Your task to perform on an android device: Open the calendar app, open the side menu, and click the "Day" option Image 0: 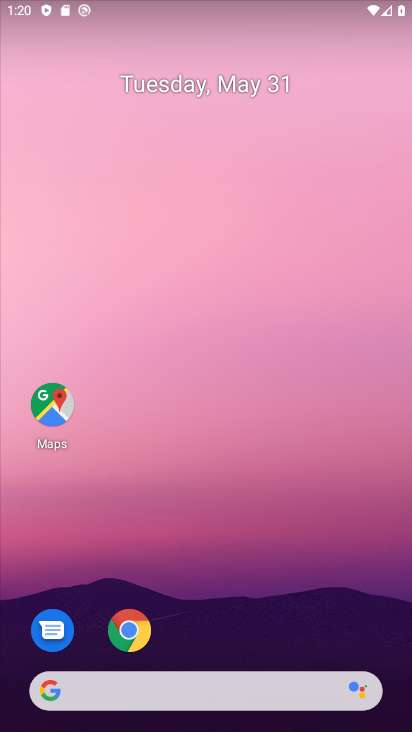
Step 0: drag from (269, 500) to (201, 65)
Your task to perform on an android device: Open the calendar app, open the side menu, and click the "Day" option Image 1: 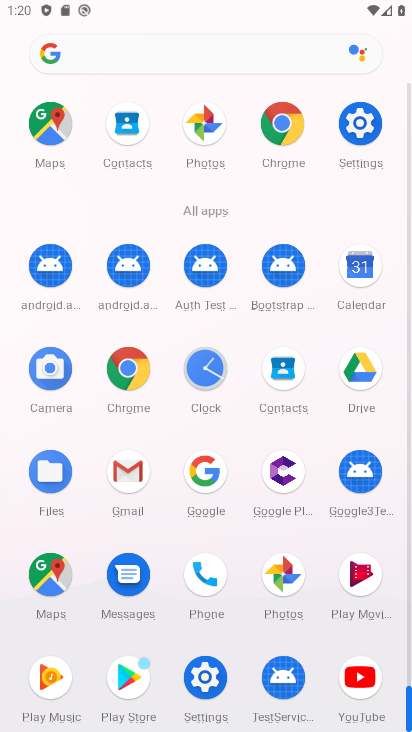
Step 1: drag from (10, 565) to (17, 277)
Your task to perform on an android device: Open the calendar app, open the side menu, and click the "Day" option Image 2: 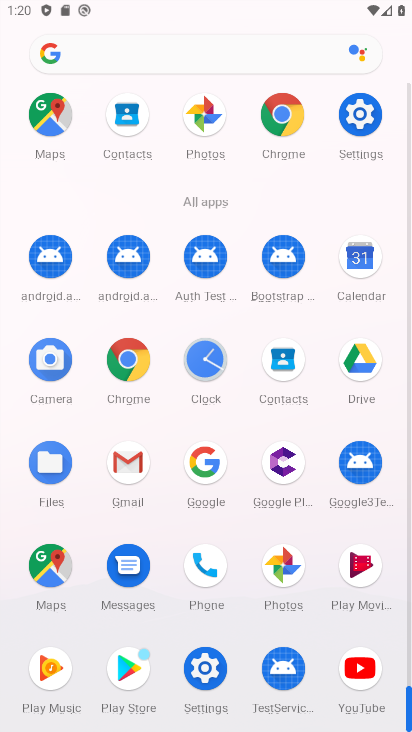
Step 2: click (359, 254)
Your task to perform on an android device: Open the calendar app, open the side menu, and click the "Day" option Image 3: 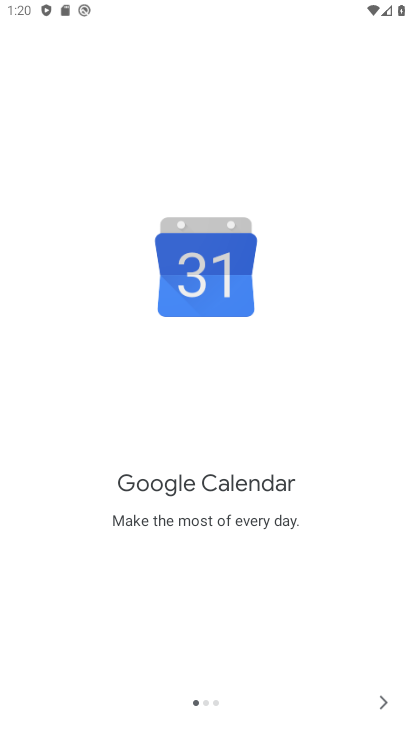
Step 3: click (383, 701)
Your task to perform on an android device: Open the calendar app, open the side menu, and click the "Day" option Image 4: 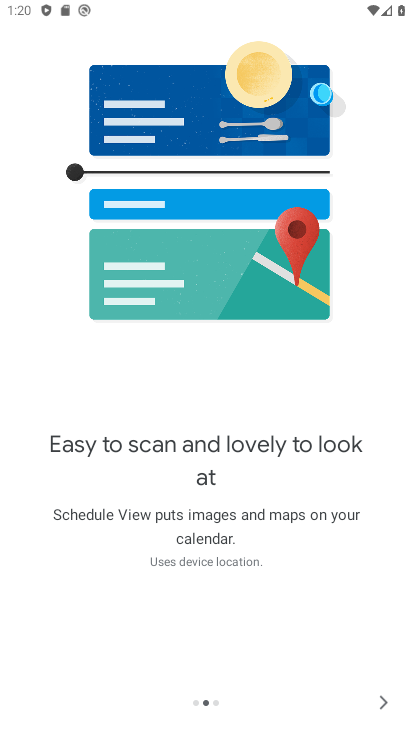
Step 4: click (384, 700)
Your task to perform on an android device: Open the calendar app, open the side menu, and click the "Day" option Image 5: 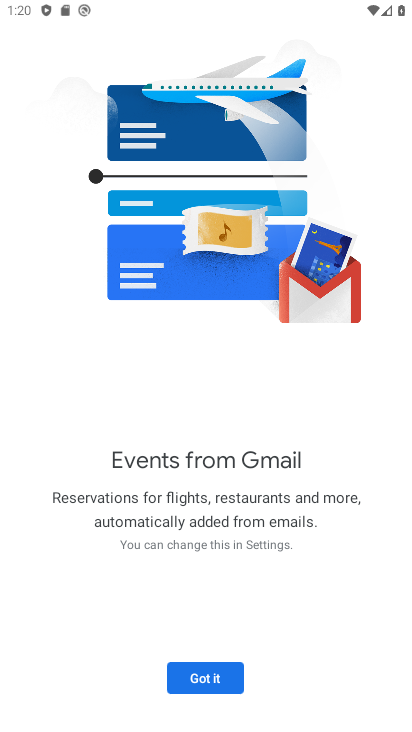
Step 5: click (222, 675)
Your task to perform on an android device: Open the calendar app, open the side menu, and click the "Day" option Image 6: 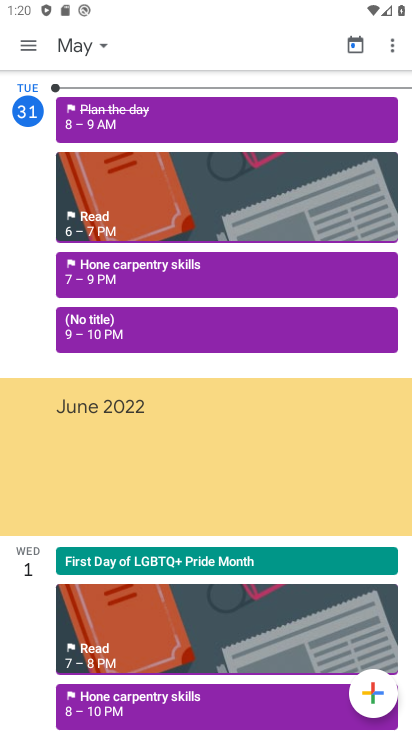
Step 6: click (34, 37)
Your task to perform on an android device: Open the calendar app, open the side menu, and click the "Day" option Image 7: 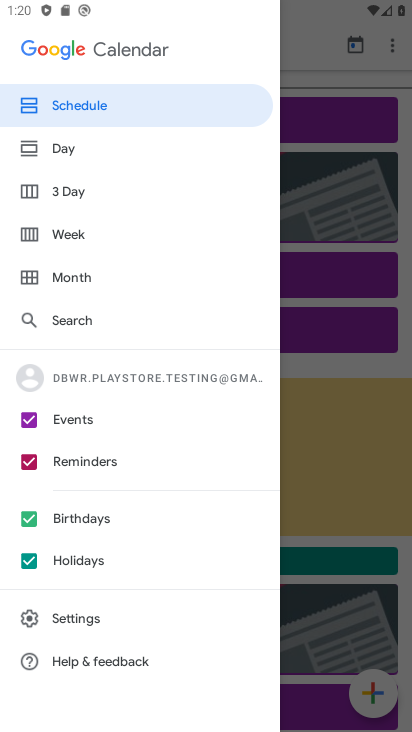
Step 7: click (93, 146)
Your task to perform on an android device: Open the calendar app, open the side menu, and click the "Day" option Image 8: 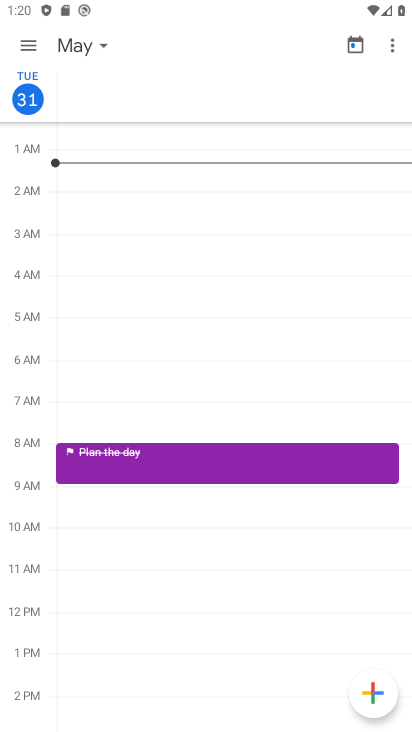
Step 8: task complete